Your task to perform on an android device: move an email to a new category in the gmail app Image 0: 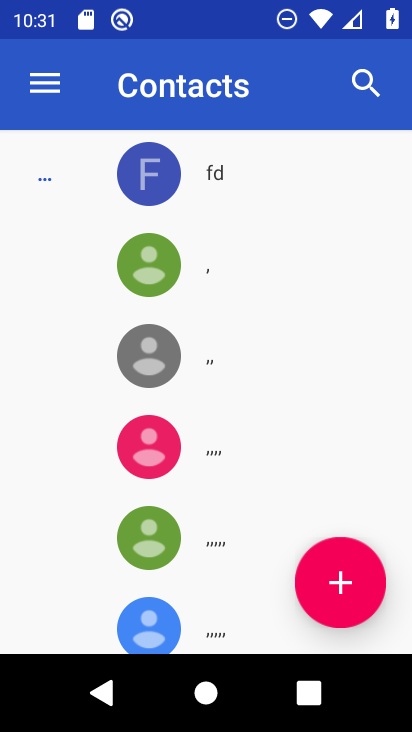
Step 0: press home button
Your task to perform on an android device: move an email to a new category in the gmail app Image 1: 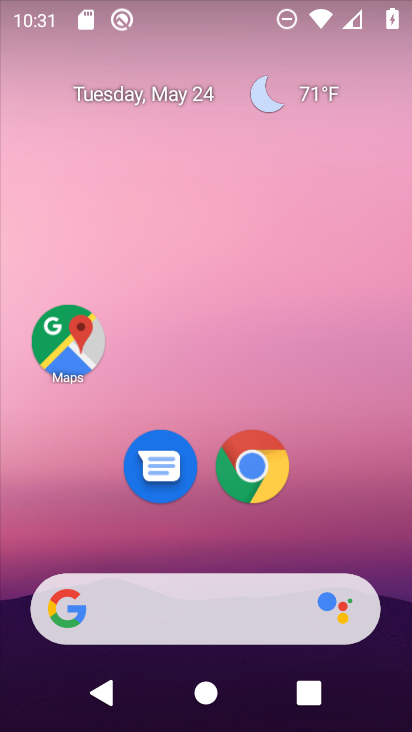
Step 1: drag from (200, 537) to (156, 18)
Your task to perform on an android device: move an email to a new category in the gmail app Image 2: 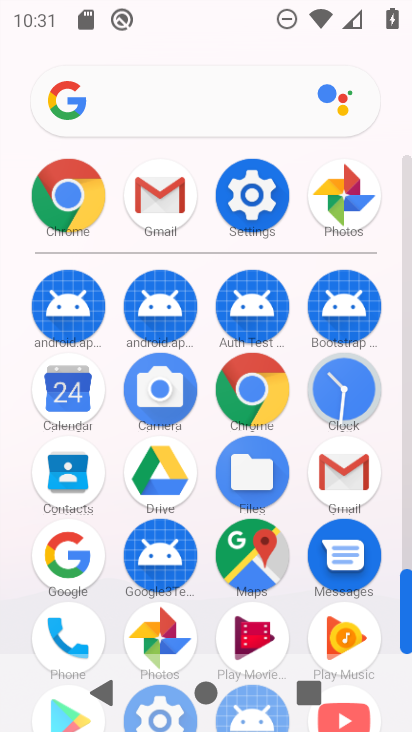
Step 2: click (351, 464)
Your task to perform on an android device: move an email to a new category in the gmail app Image 3: 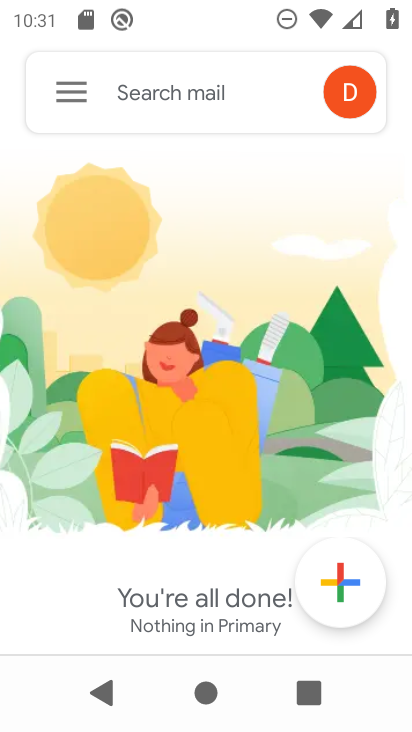
Step 3: click (74, 85)
Your task to perform on an android device: move an email to a new category in the gmail app Image 4: 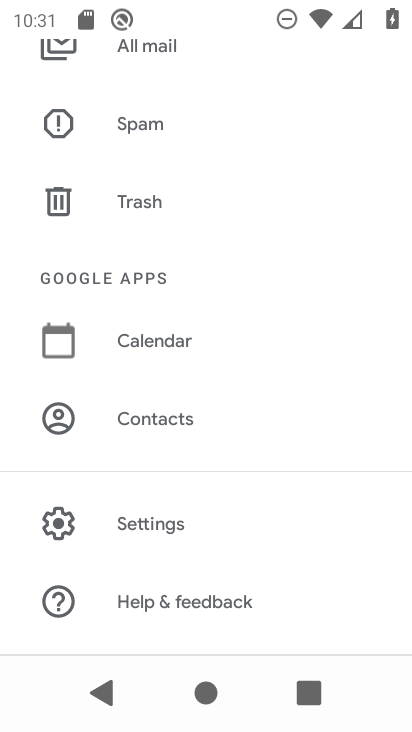
Step 4: click (152, 58)
Your task to perform on an android device: move an email to a new category in the gmail app Image 5: 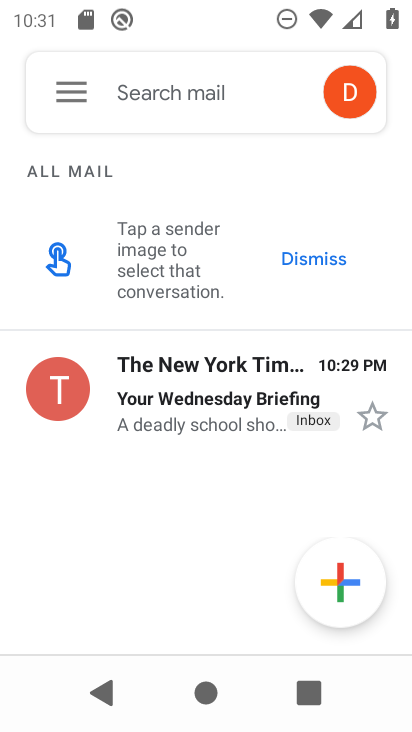
Step 5: click (36, 395)
Your task to perform on an android device: move an email to a new category in the gmail app Image 6: 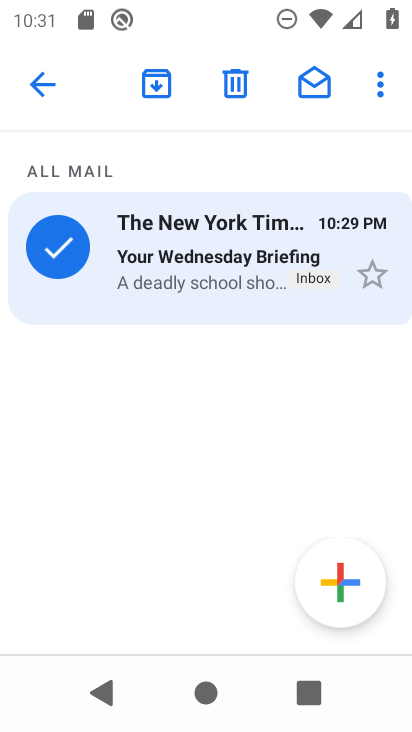
Step 6: click (376, 91)
Your task to perform on an android device: move an email to a new category in the gmail app Image 7: 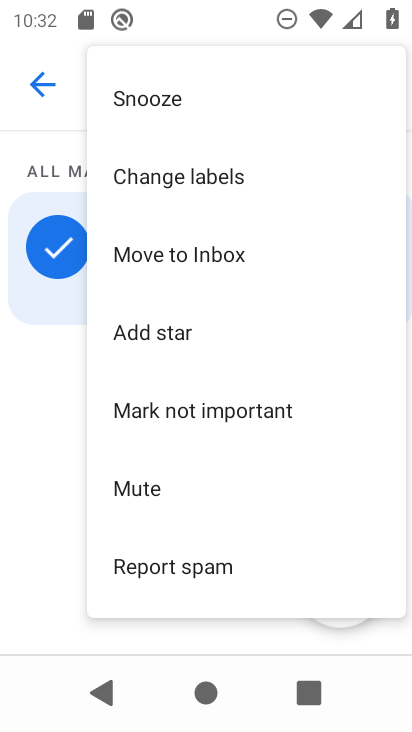
Step 7: click (41, 236)
Your task to perform on an android device: move an email to a new category in the gmail app Image 8: 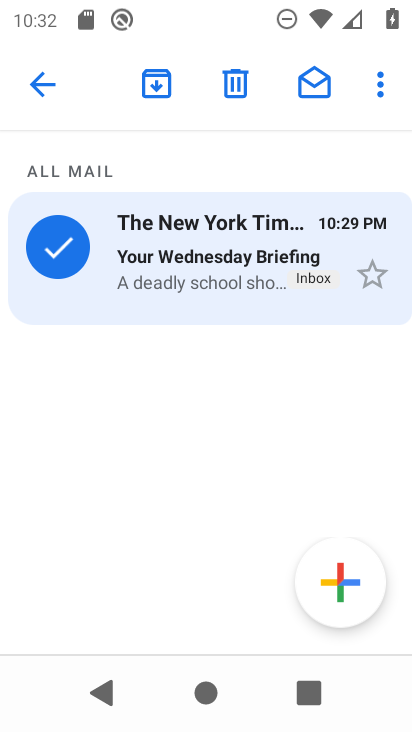
Step 8: click (41, 236)
Your task to perform on an android device: move an email to a new category in the gmail app Image 9: 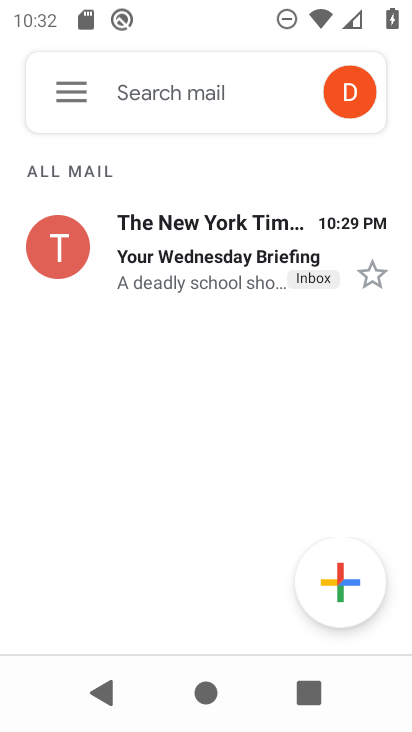
Step 9: click (373, 267)
Your task to perform on an android device: move an email to a new category in the gmail app Image 10: 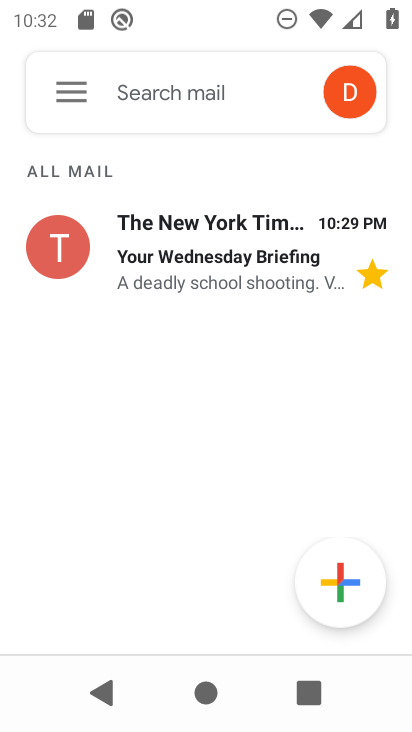
Step 10: task complete